Your task to perform on an android device: Go to notification settings Image 0: 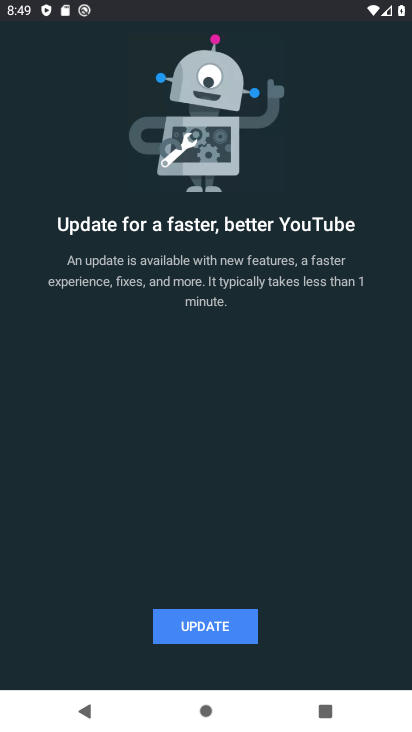
Step 0: press home button
Your task to perform on an android device: Go to notification settings Image 1: 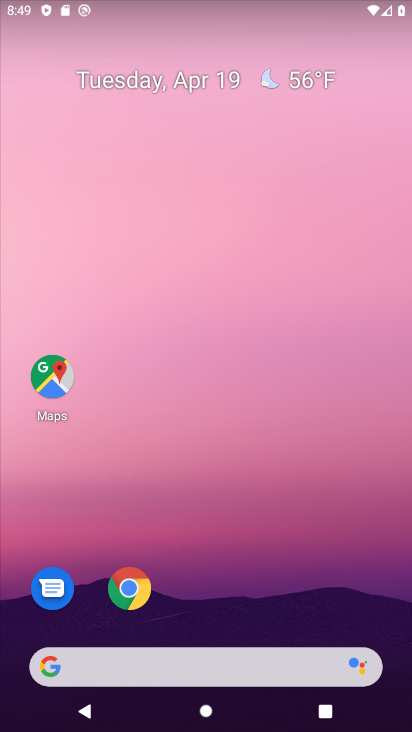
Step 1: drag from (214, 372) to (253, 109)
Your task to perform on an android device: Go to notification settings Image 2: 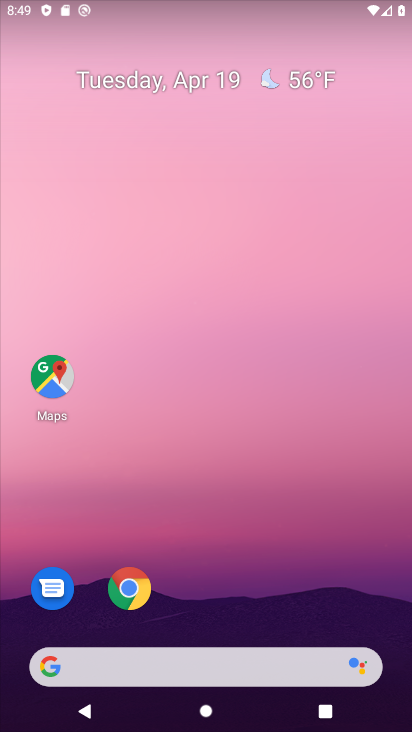
Step 2: drag from (228, 620) to (252, 41)
Your task to perform on an android device: Go to notification settings Image 3: 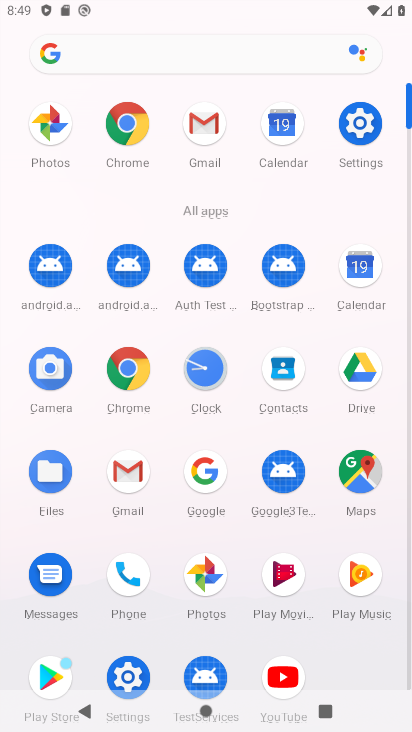
Step 3: click (358, 113)
Your task to perform on an android device: Go to notification settings Image 4: 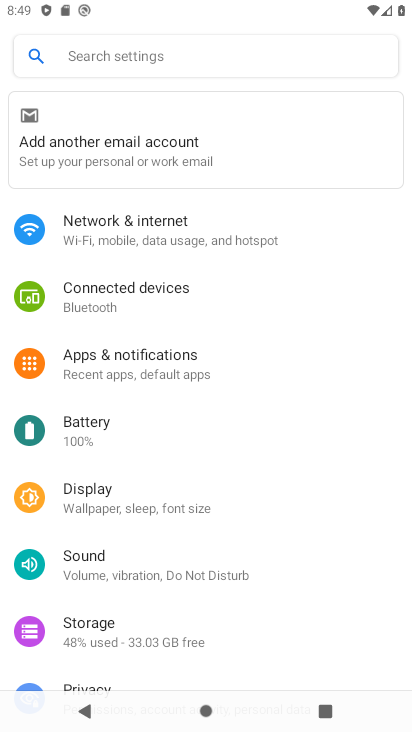
Step 4: click (216, 350)
Your task to perform on an android device: Go to notification settings Image 5: 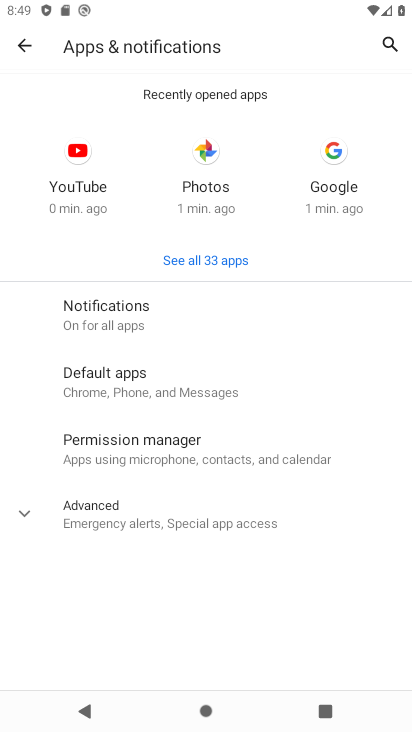
Step 5: click (156, 312)
Your task to perform on an android device: Go to notification settings Image 6: 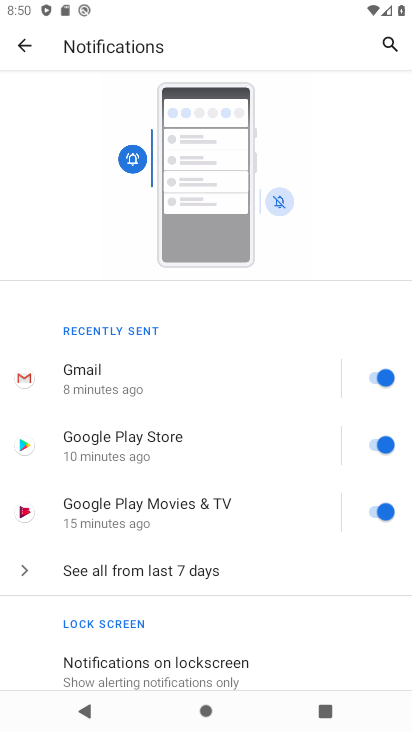
Step 6: click (377, 370)
Your task to perform on an android device: Go to notification settings Image 7: 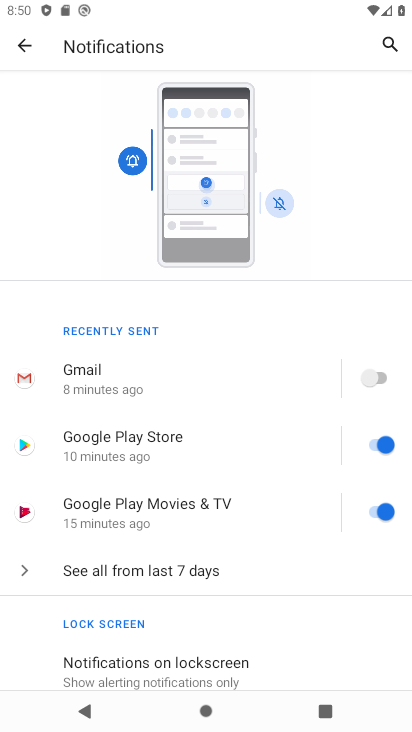
Step 7: click (376, 444)
Your task to perform on an android device: Go to notification settings Image 8: 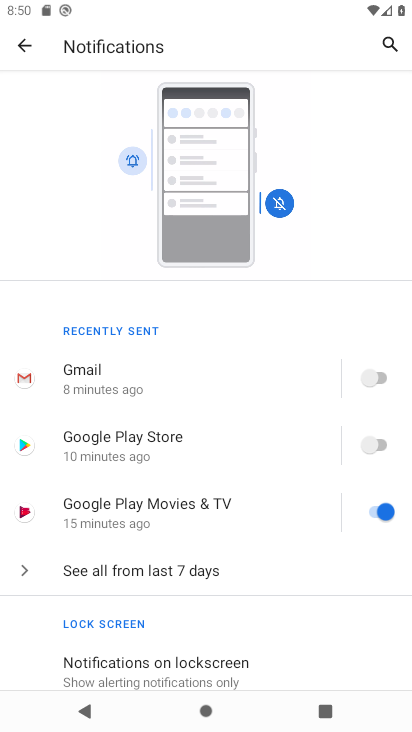
Step 8: click (379, 510)
Your task to perform on an android device: Go to notification settings Image 9: 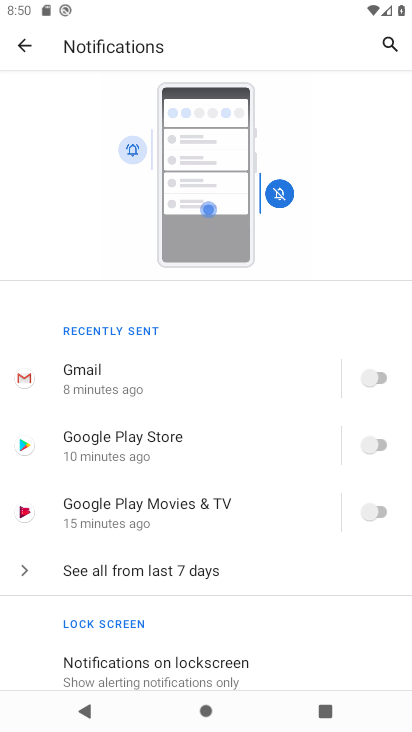
Step 9: click (200, 664)
Your task to perform on an android device: Go to notification settings Image 10: 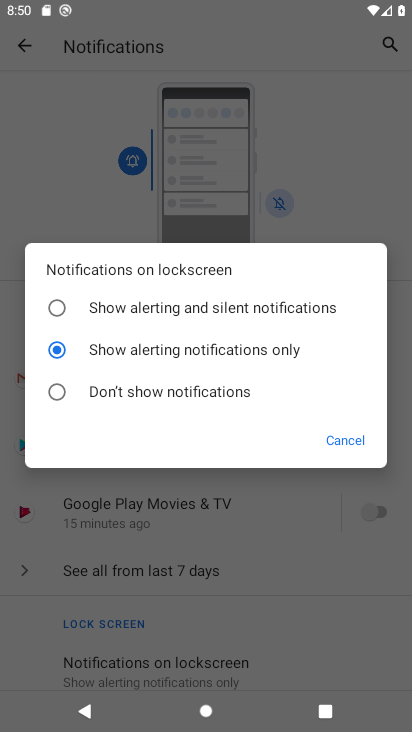
Step 10: click (54, 312)
Your task to perform on an android device: Go to notification settings Image 11: 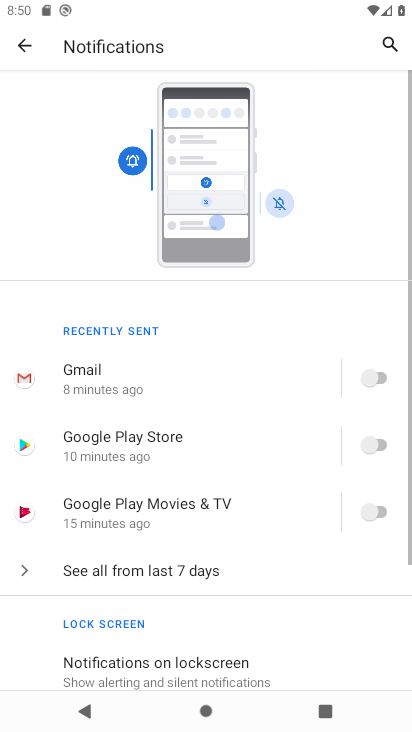
Step 11: task complete